Your task to perform on an android device: show emergency info Image 0: 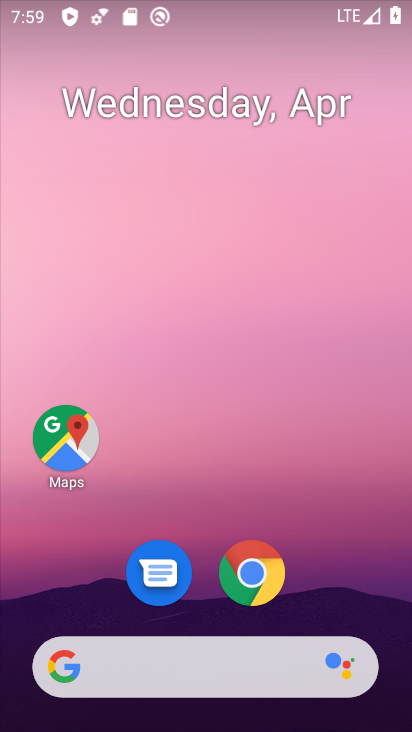
Step 0: drag from (90, 523) to (274, 193)
Your task to perform on an android device: show emergency info Image 1: 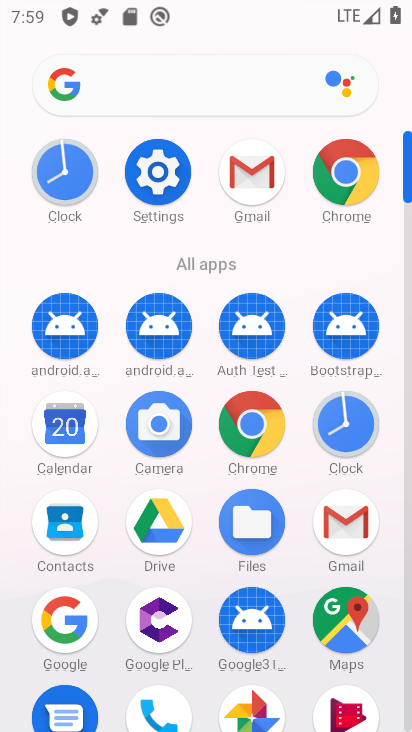
Step 1: click (160, 149)
Your task to perform on an android device: show emergency info Image 2: 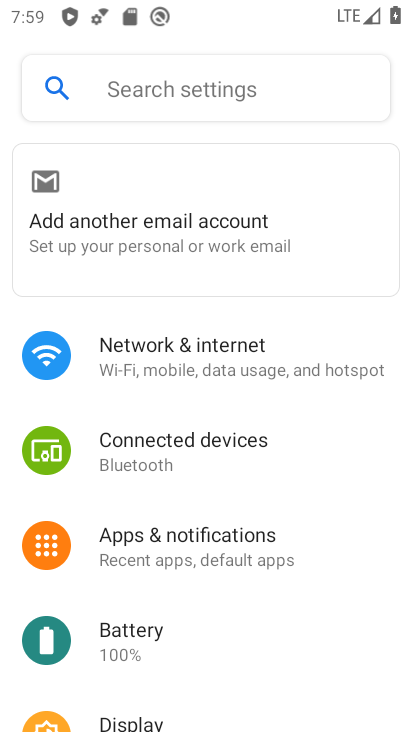
Step 2: drag from (189, 646) to (299, 298)
Your task to perform on an android device: show emergency info Image 3: 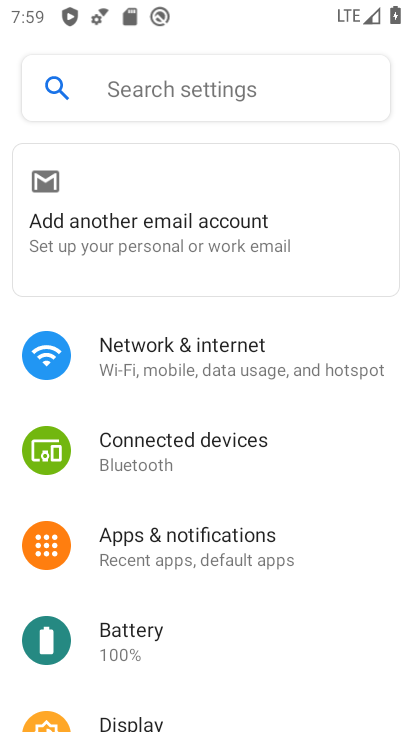
Step 3: drag from (174, 628) to (289, 272)
Your task to perform on an android device: show emergency info Image 4: 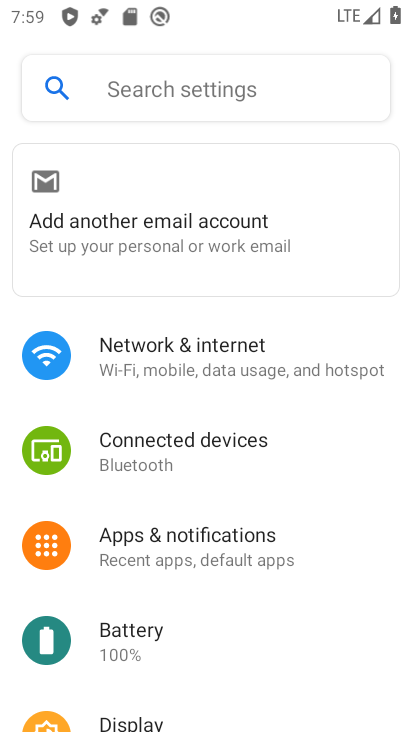
Step 4: drag from (145, 556) to (266, 212)
Your task to perform on an android device: show emergency info Image 5: 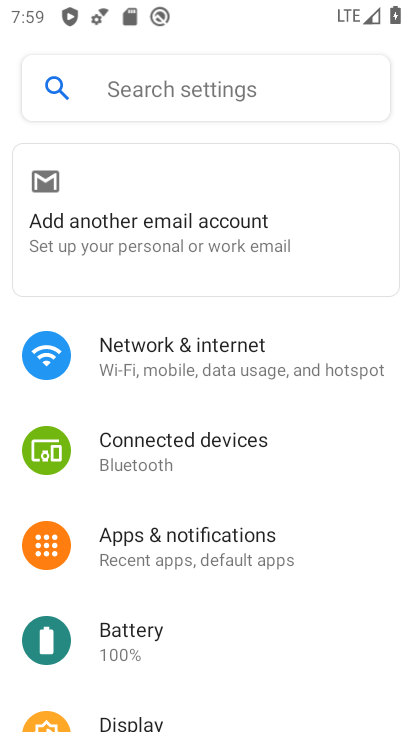
Step 5: drag from (143, 658) to (327, 236)
Your task to perform on an android device: show emergency info Image 6: 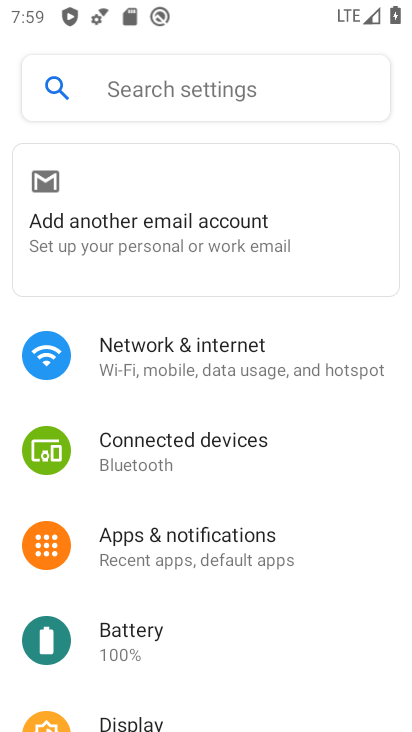
Step 6: drag from (30, 590) to (280, 232)
Your task to perform on an android device: show emergency info Image 7: 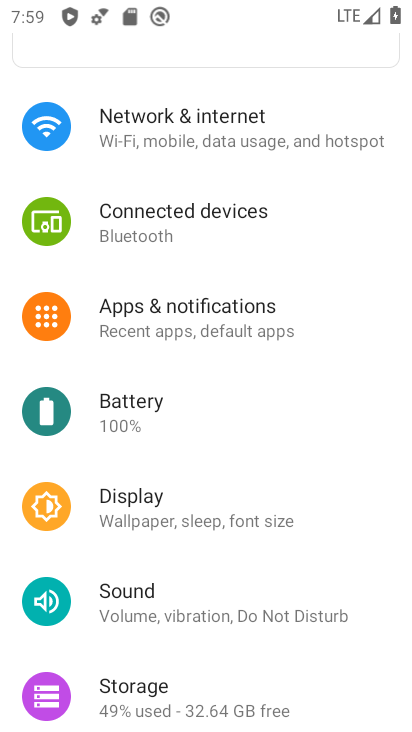
Step 7: drag from (100, 696) to (356, 247)
Your task to perform on an android device: show emergency info Image 8: 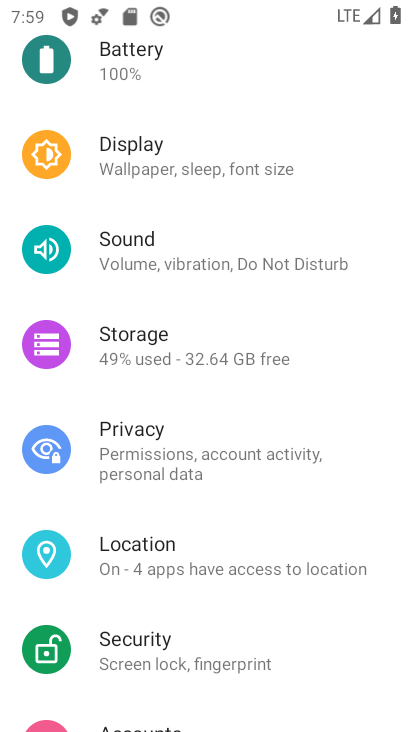
Step 8: drag from (148, 639) to (324, 251)
Your task to perform on an android device: show emergency info Image 9: 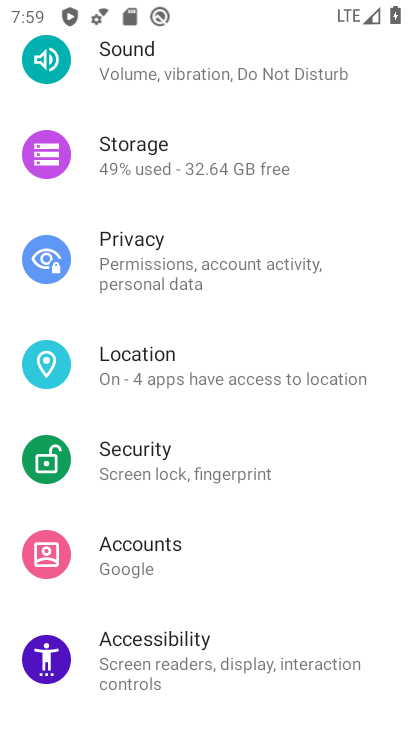
Step 9: drag from (103, 606) to (241, 441)
Your task to perform on an android device: show emergency info Image 10: 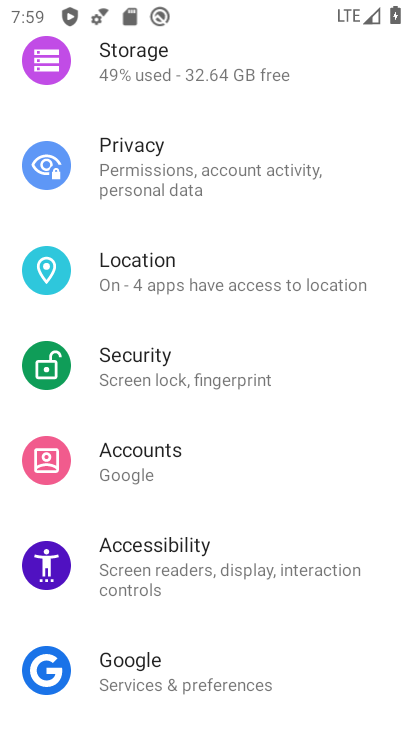
Step 10: drag from (202, 645) to (356, 330)
Your task to perform on an android device: show emergency info Image 11: 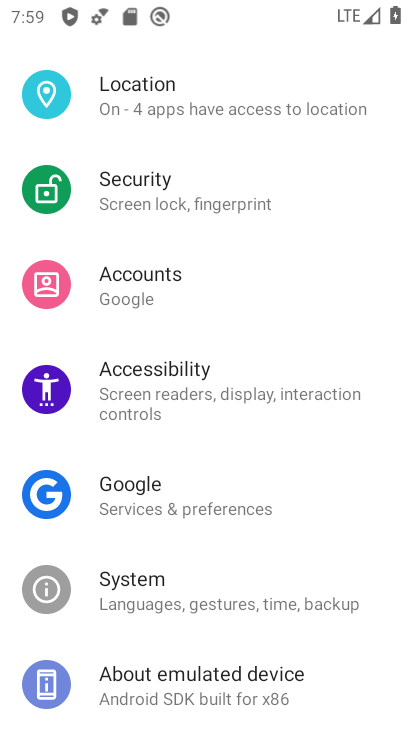
Step 11: click (222, 618)
Your task to perform on an android device: show emergency info Image 12: 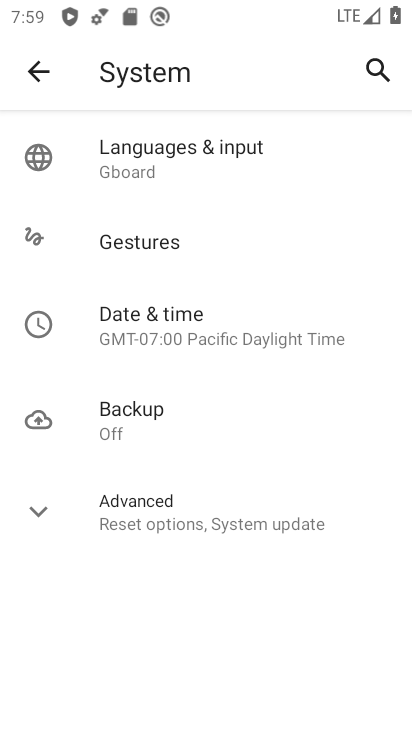
Step 12: press back button
Your task to perform on an android device: show emergency info Image 13: 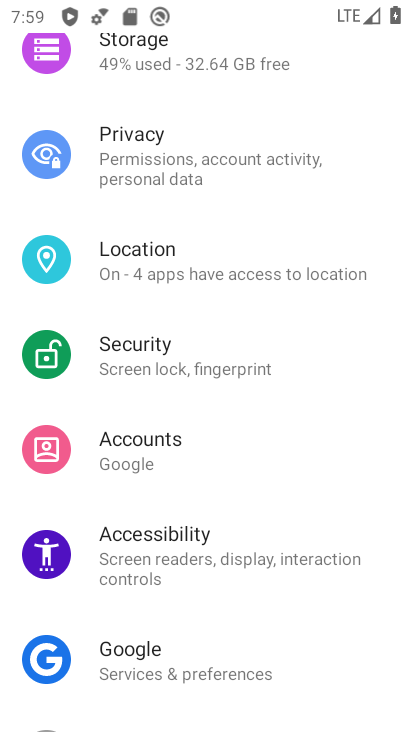
Step 13: drag from (168, 679) to (348, 319)
Your task to perform on an android device: show emergency info Image 14: 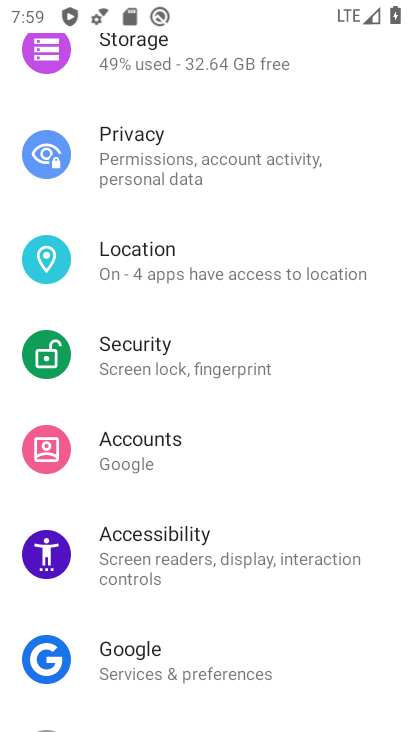
Step 14: drag from (33, 620) to (283, 245)
Your task to perform on an android device: show emergency info Image 15: 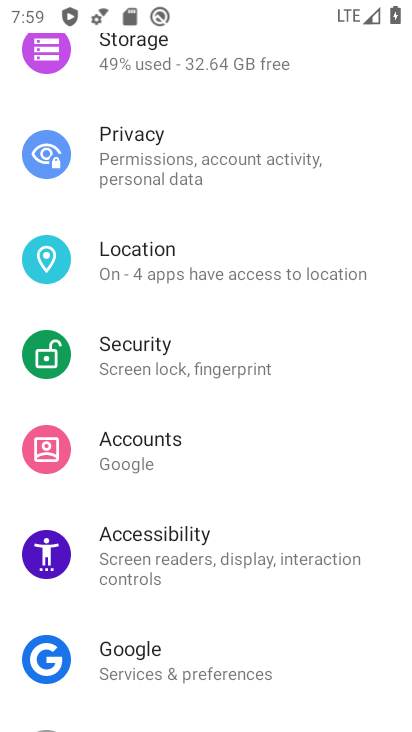
Step 15: drag from (154, 665) to (392, 258)
Your task to perform on an android device: show emergency info Image 16: 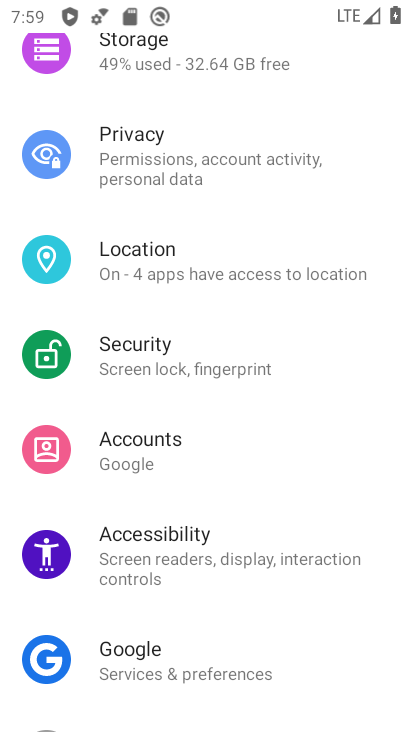
Step 16: drag from (220, 625) to (408, 277)
Your task to perform on an android device: show emergency info Image 17: 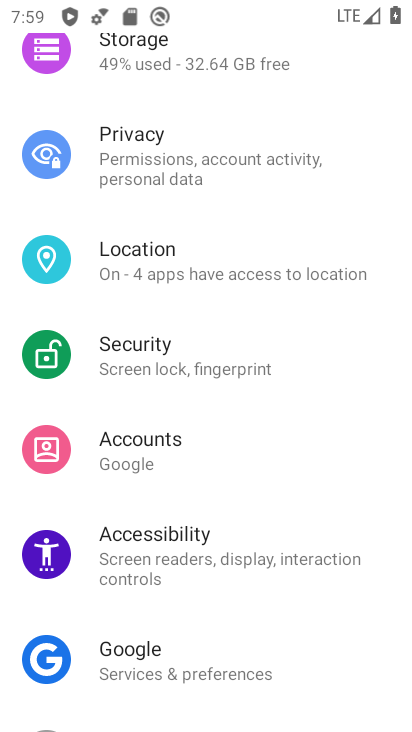
Step 17: drag from (16, 605) to (295, 209)
Your task to perform on an android device: show emergency info Image 18: 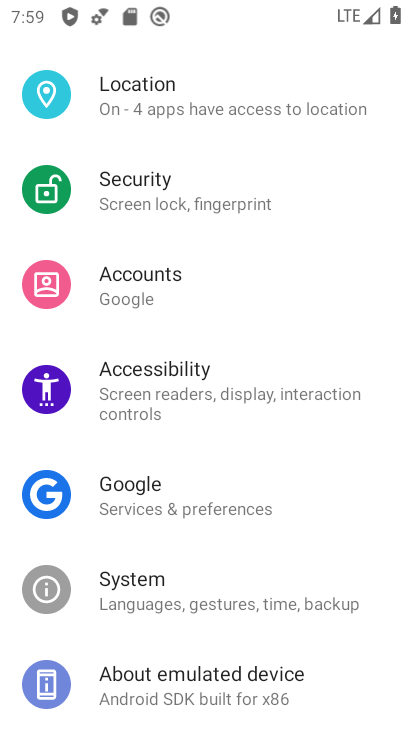
Step 18: click (135, 703)
Your task to perform on an android device: show emergency info Image 19: 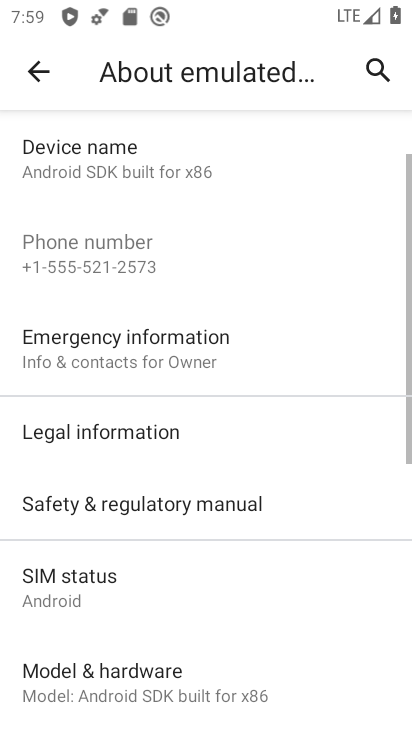
Step 19: click (186, 354)
Your task to perform on an android device: show emergency info Image 20: 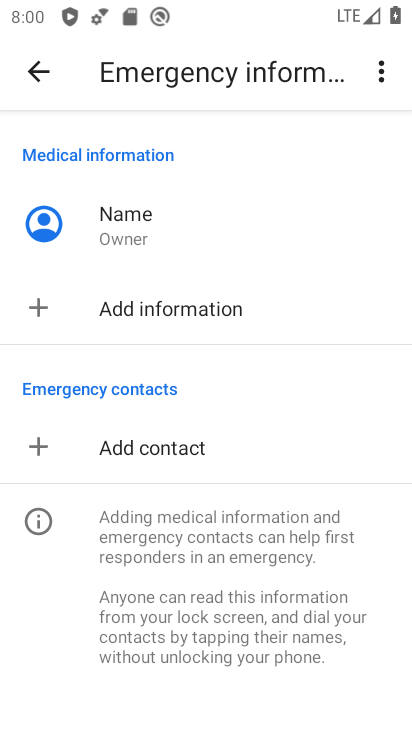
Step 20: task complete